Your task to perform on an android device: Is it going to rain this weekend? Image 0: 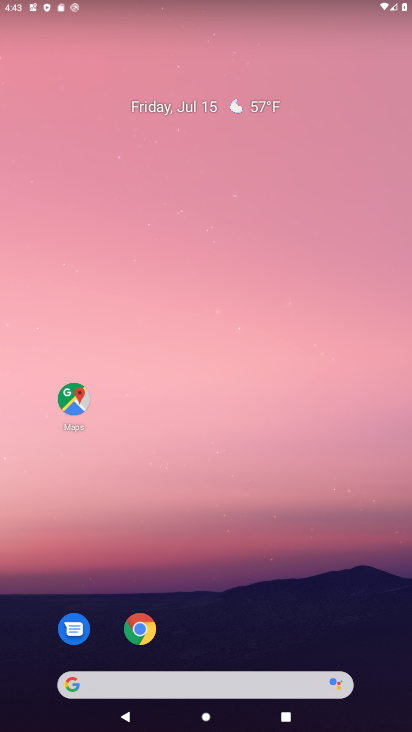
Step 0: click (86, 676)
Your task to perform on an android device: Is it going to rain this weekend? Image 1: 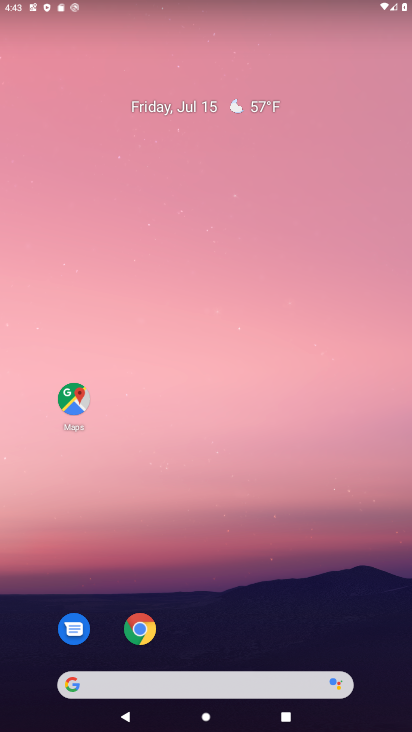
Step 1: click (71, 677)
Your task to perform on an android device: Is it going to rain this weekend? Image 2: 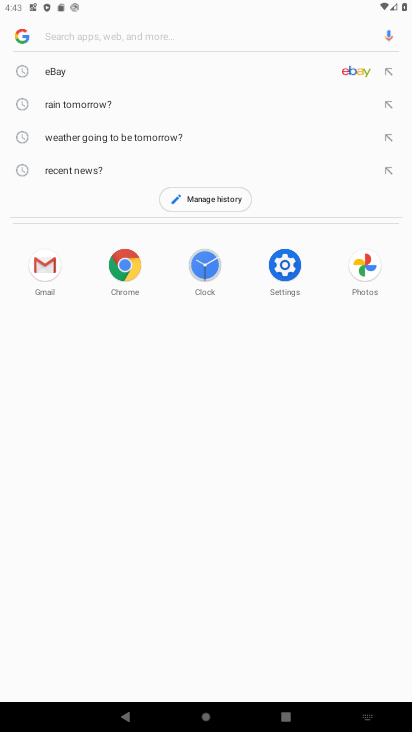
Step 2: type "rain this weekend?"
Your task to perform on an android device: Is it going to rain this weekend? Image 3: 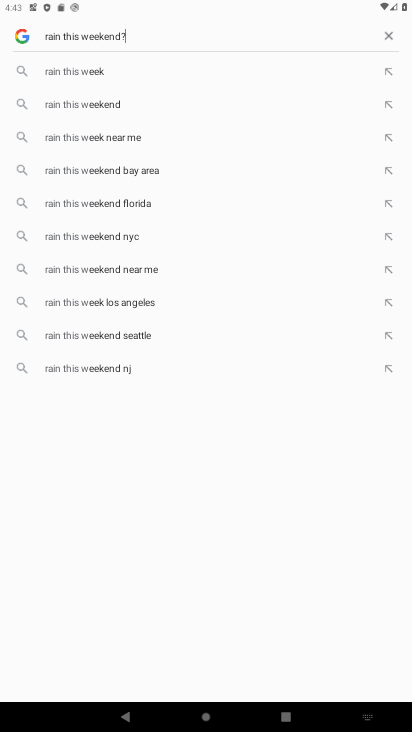
Step 3: press enter
Your task to perform on an android device: Is it going to rain this weekend? Image 4: 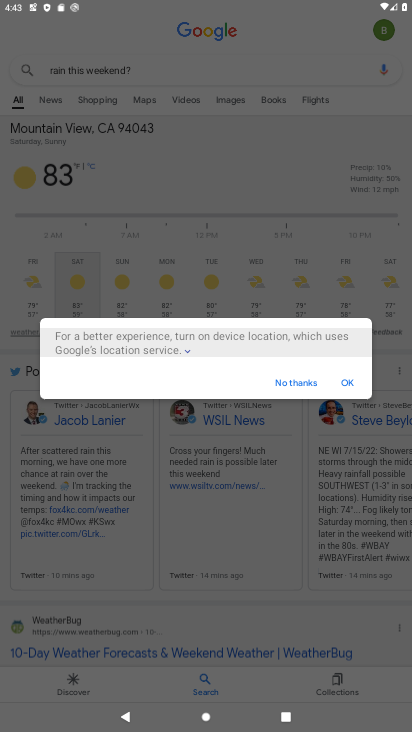
Step 4: click (301, 381)
Your task to perform on an android device: Is it going to rain this weekend? Image 5: 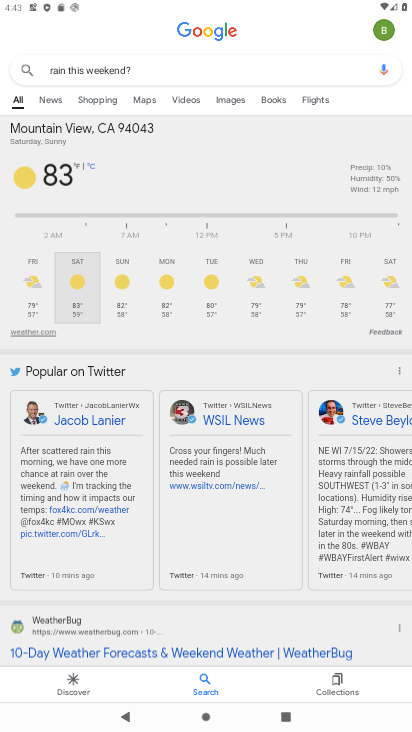
Step 5: task complete